Your task to perform on an android device: find snoozed emails in the gmail app Image 0: 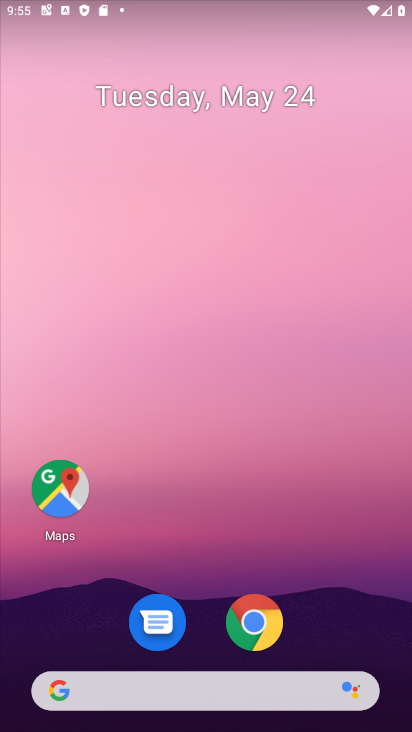
Step 0: drag from (240, 714) to (351, 177)
Your task to perform on an android device: find snoozed emails in the gmail app Image 1: 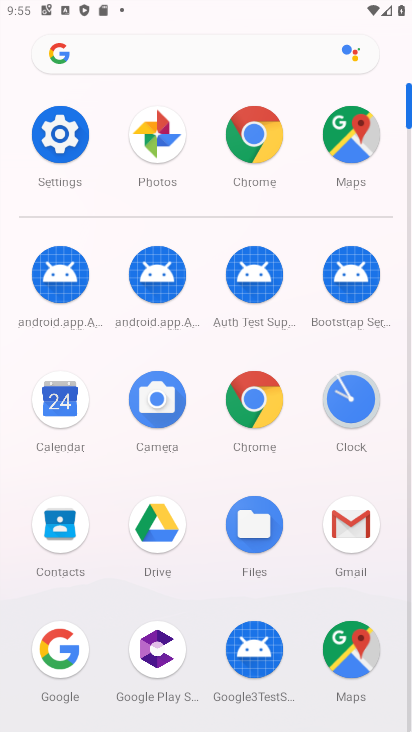
Step 1: click (350, 526)
Your task to perform on an android device: find snoozed emails in the gmail app Image 2: 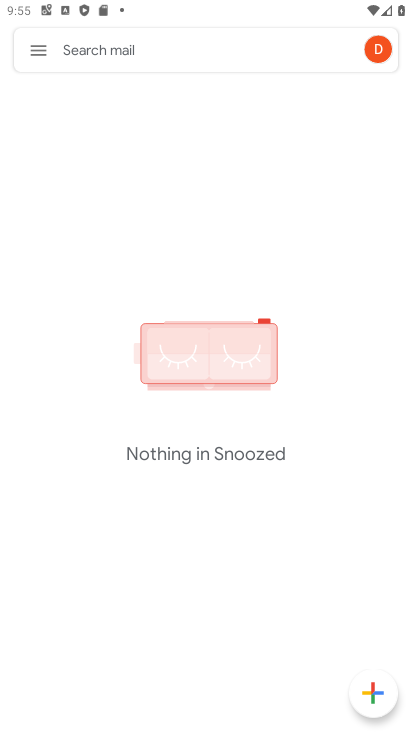
Step 2: click (32, 58)
Your task to perform on an android device: find snoozed emails in the gmail app Image 3: 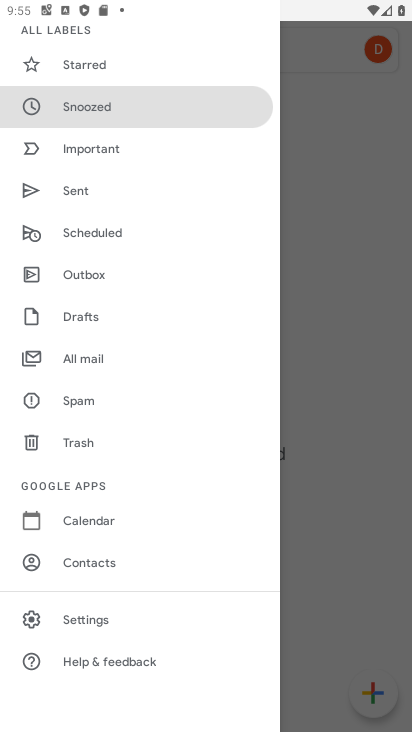
Step 3: click (112, 110)
Your task to perform on an android device: find snoozed emails in the gmail app Image 4: 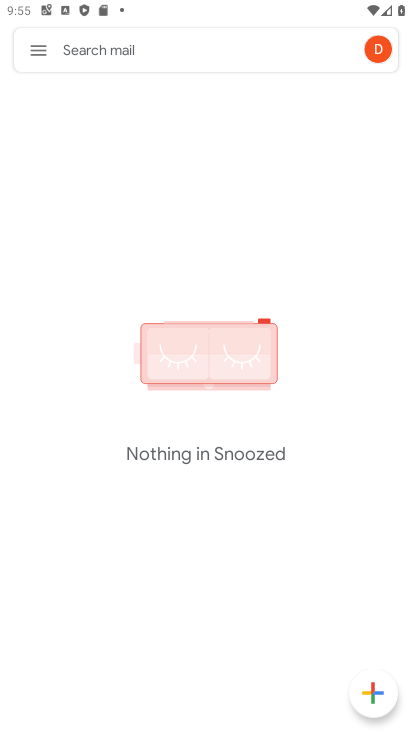
Step 4: task complete